Your task to perform on an android device: turn on the 12-hour format for clock Image 0: 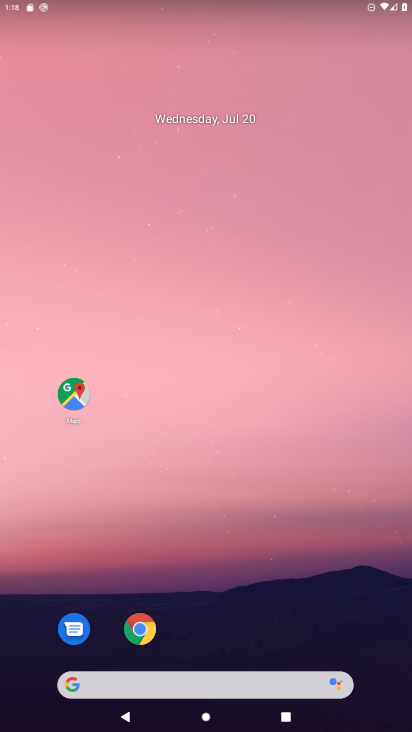
Step 0: drag from (240, 639) to (208, 414)
Your task to perform on an android device: turn on the 12-hour format for clock Image 1: 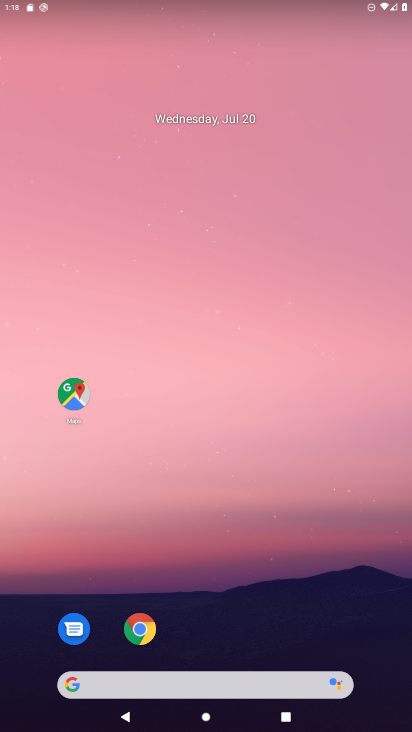
Step 1: drag from (194, 571) to (170, 394)
Your task to perform on an android device: turn on the 12-hour format for clock Image 2: 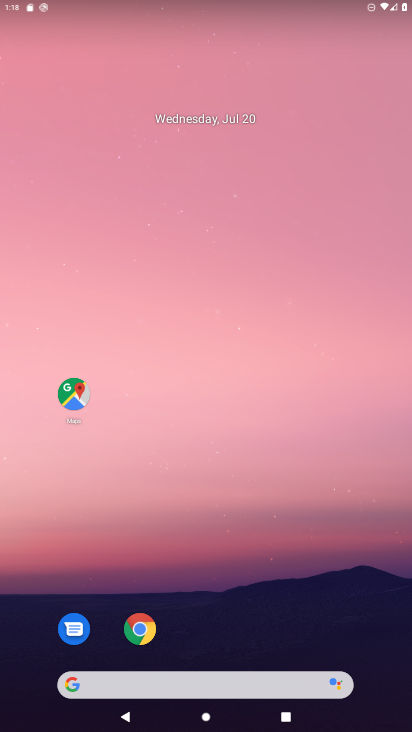
Step 2: drag from (184, 573) to (157, 311)
Your task to perform on an android device: turn on the 12-hour format for clock Image 3: 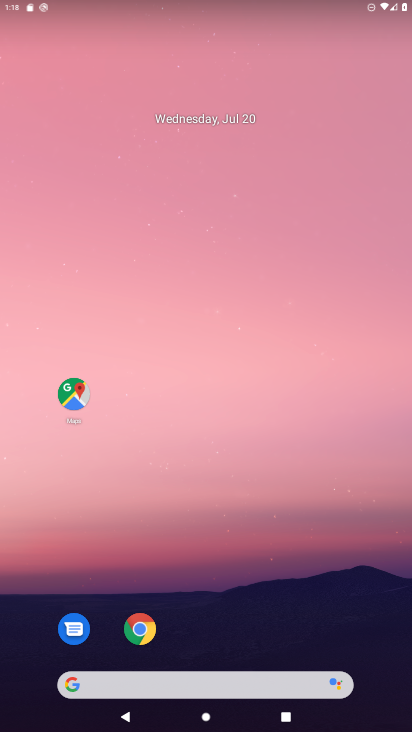
Step 3: drag from (208, 658) to (208, 274)
Your task to perform on an android device: turn on the 12-hour format for clock Image 4: 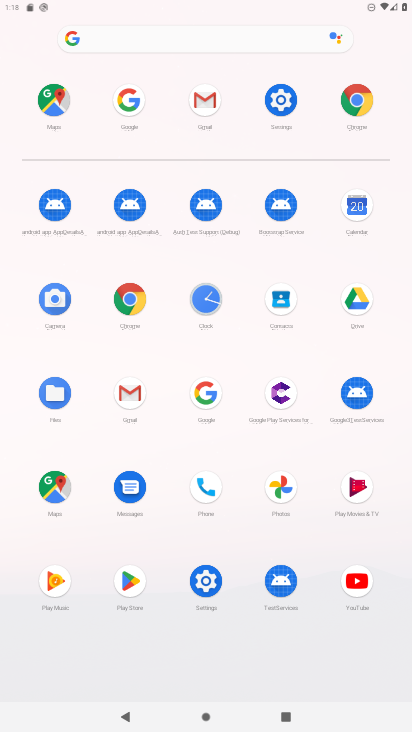
Step 4: click (289, 105)
Your task to perform on an android device: turn on the 12-hour format for clock Image 5: 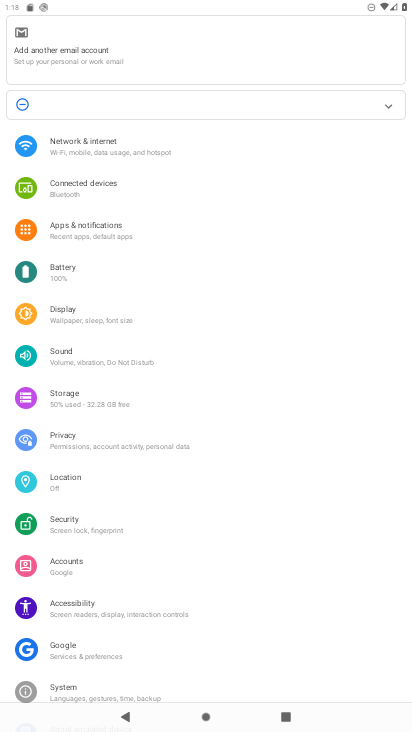
Step 5: press back button
Your task to perform on an android device: turn on the 12-hour format for clock Image 6: 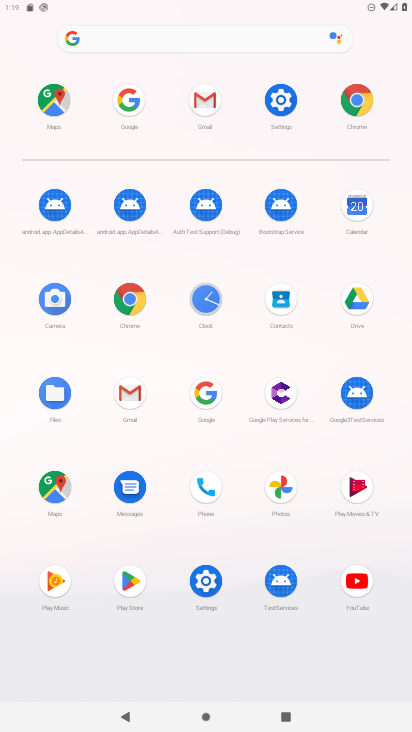
Step 6: click (205, 309)
Your task to perform on an android device: turn on the 12-hour format for clock Image 7: 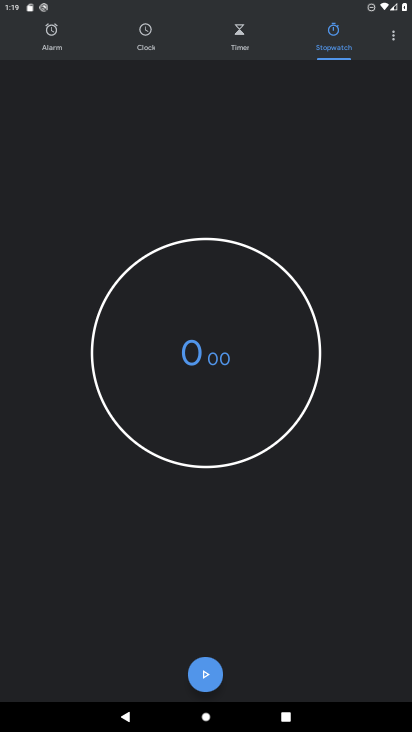
Step 7: click (392, 32)
Your task to perform on an android device: turn on the 12-hour format for clock Image 8: 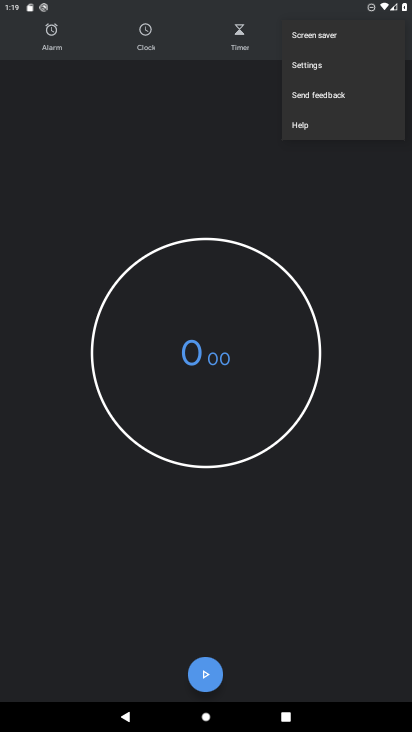
Step 8: click (316, 67)
Your task to perform on an android device: turn on the 12-hour format for clock Image 9: 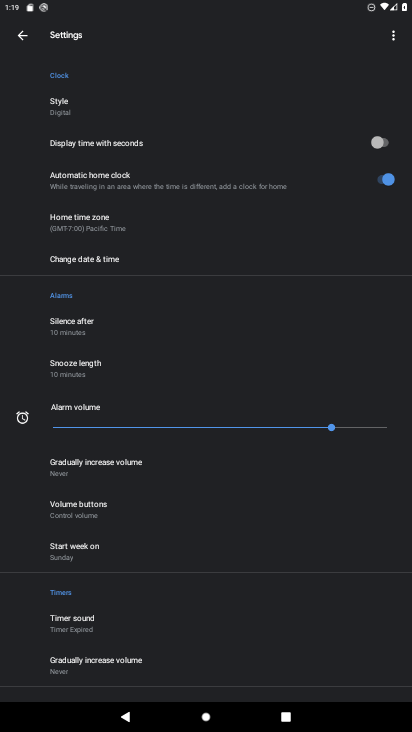
Step 9: click (120, 267)
Your task to perform on an android device: turn on the 12-hour format for clock Image 10: 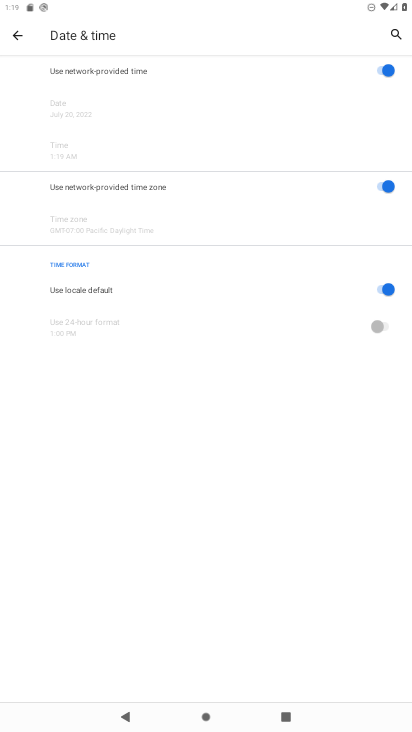
Step 10: task complete